Your task to perform on an android device: show emergency info Image 0: 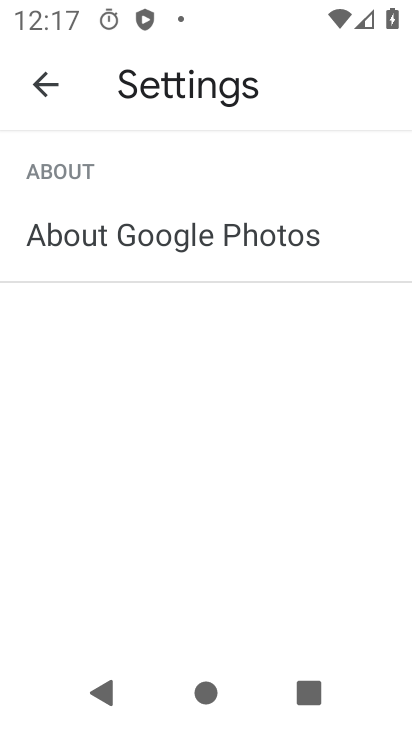
Step 0: press home button
Your task to perform on an android device: show emergency info Image 1: 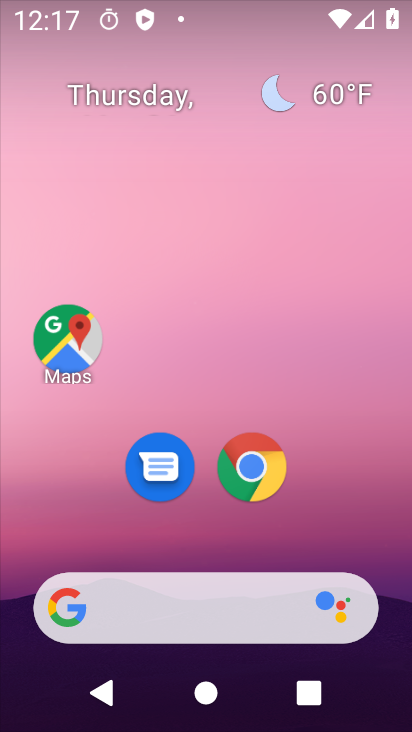
Step 1: drag from (214, 531) to (202, 0)
Your task to perform on an android device: show emergency info Image 2: 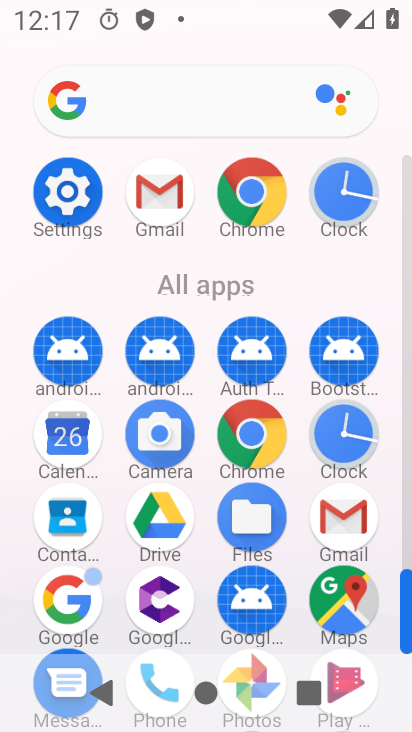
Step 2: click (68, 196)
Your task to perform on an android device: show emergency info Image 3: 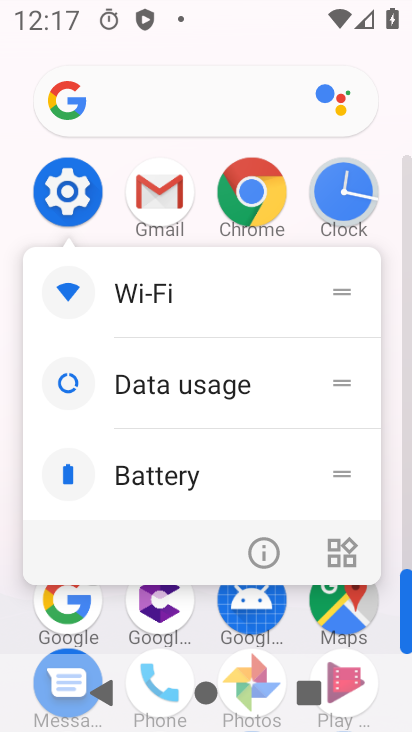
Step 3: click (68, 196)
Your task to perform on an android device: show emergency info Image 4: 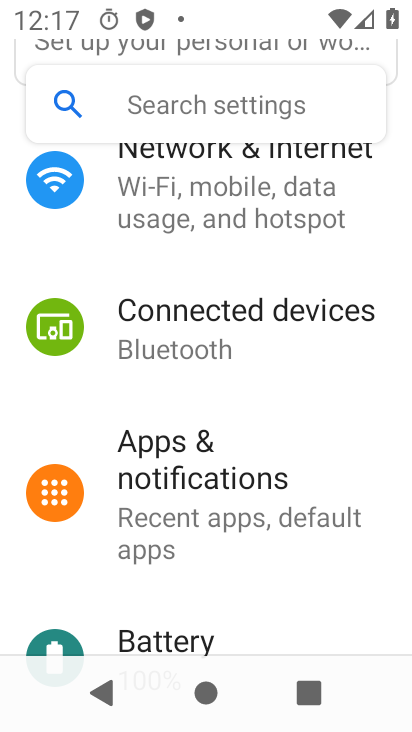
Step 4: drag from (195, 573) to (236, 87)
Your task to perform on an android device: show emergency info Image 5: 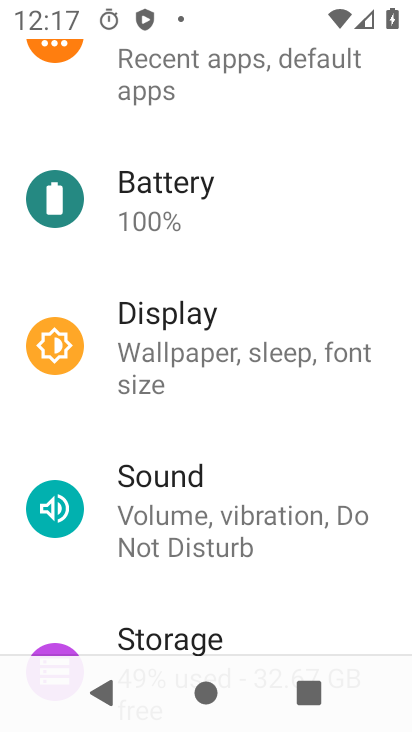
Step 5: drag from (266, 312) to (328, 37)
Your task to perform on an android device: show emergency info Image 6: 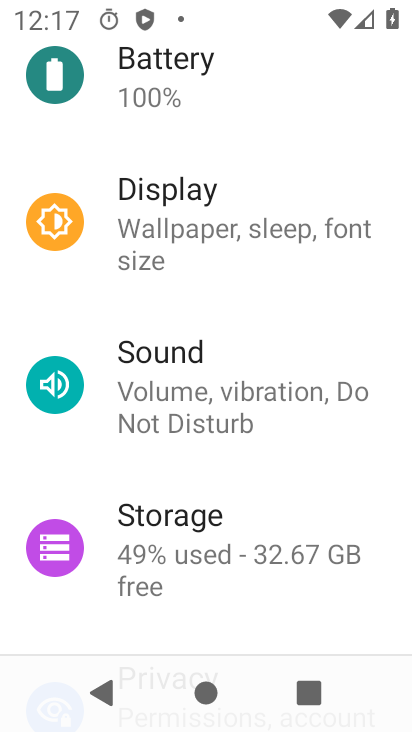
Step 6: drag from (228, 572) to (257, 243)
Your task to perform on an android device: show emergency info Image 7: 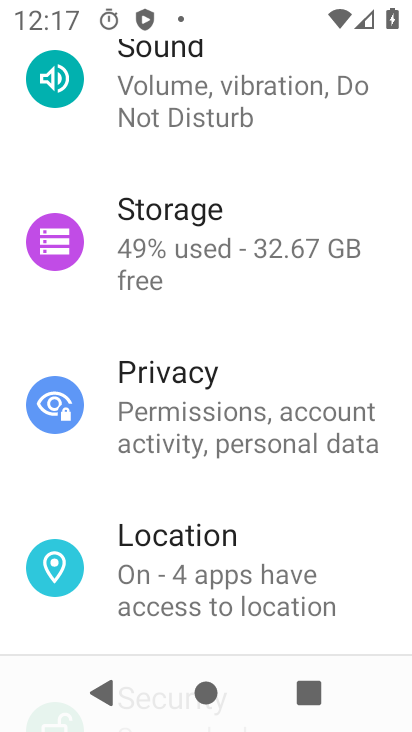
Step 7: drag from (209, 585) to (223, 147)
Your task to perform on an android device: show emergency info Image 8: 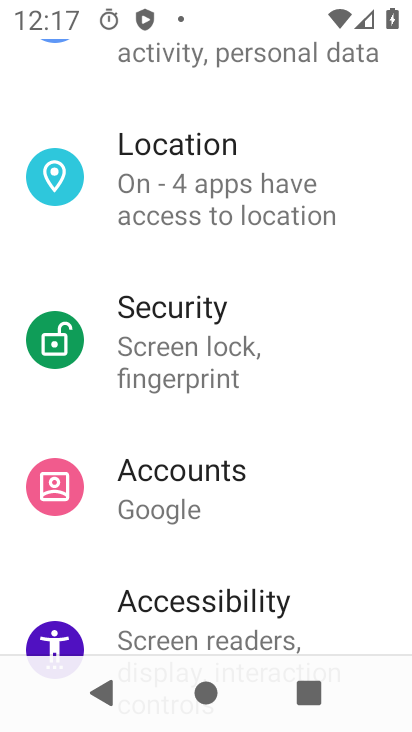
Step 8: drag from (218, 588) to (251, 226)
Your task to perform on an android device: show emergency info Image 9: 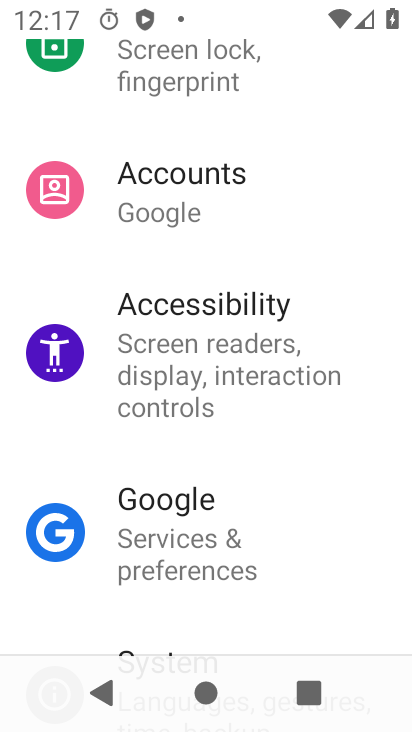
Step 9: drag from (213, 495) to (283, 31)
Your task to perform on an android device: show emergency info Image 10: 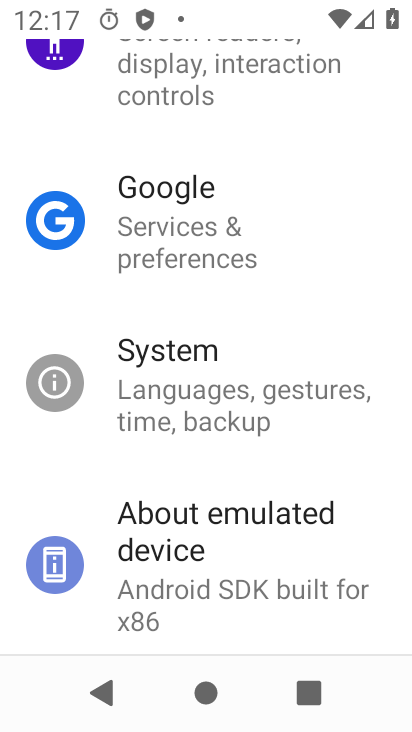
Step 10: drag from (195, 544) to (234, 109)
Your task to perform on an android device: show emergency info Image 11: 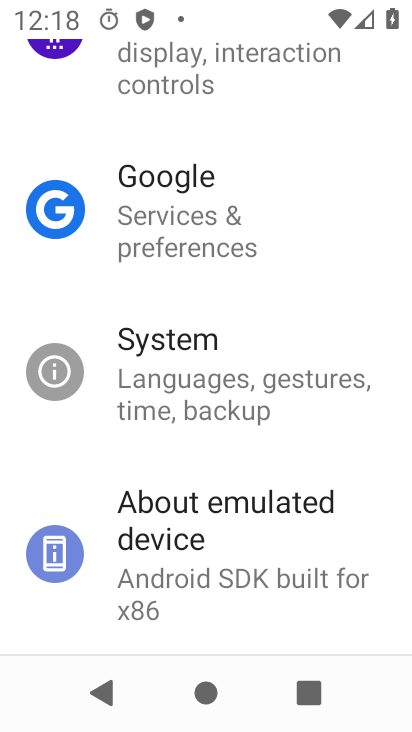
Step 11: click (161, 542)
Your task to perform on an android device: show emergency info Image 12: 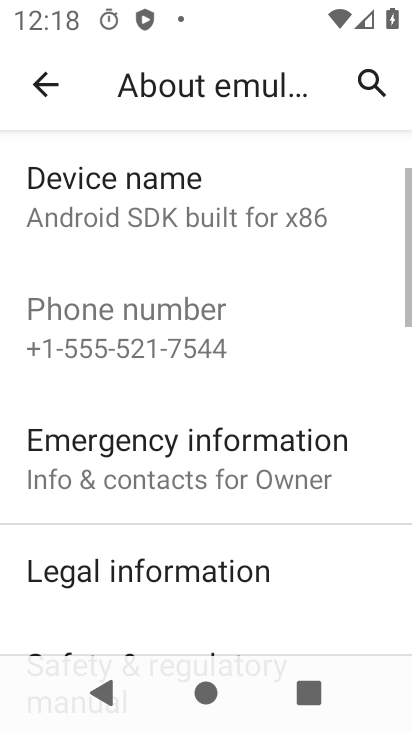
Step 12: click (111, 481)
Your task to perform on an android device: show emergency info Image 13: 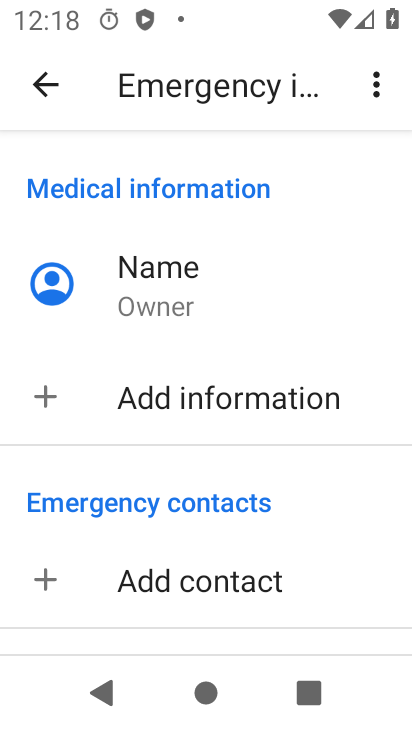
Step 13: task complete